Your task to perform on an android device: open device folders in google photos Image 0: 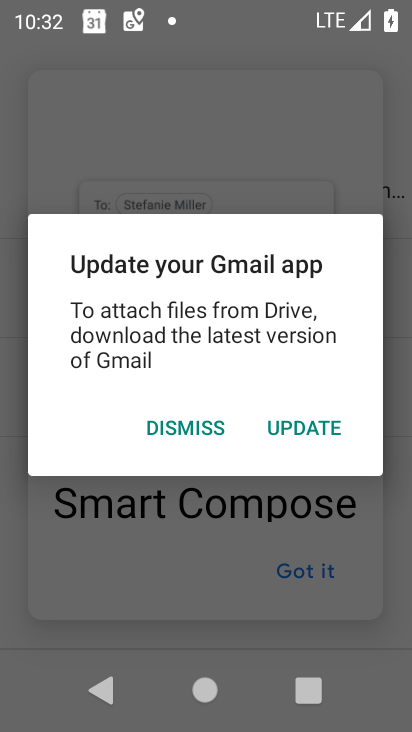
Step 0: press home button
Your task to perform on an android device: open device folders in google photos Image 1: 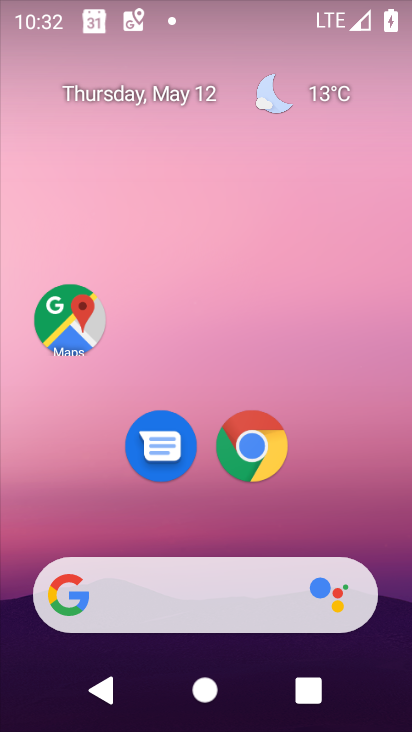
Step 1: drag from (233, 673) to (375, 0)
Your task to perform on an android device: open device folders in google photos Image 2: 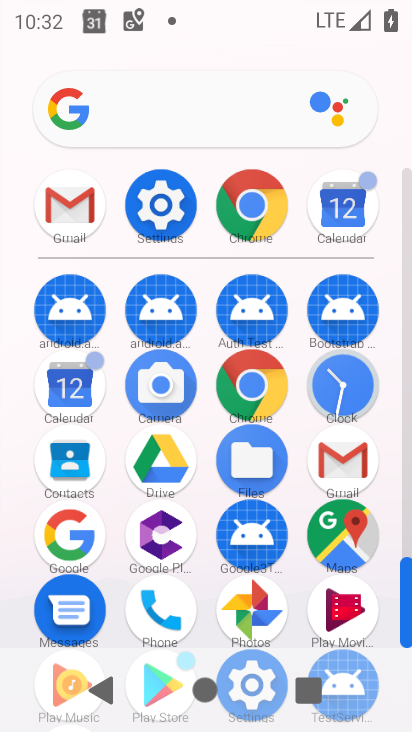
Step 2: click (255, 615)
Your task to perform on an android device: open device folders in google photos Image 3: 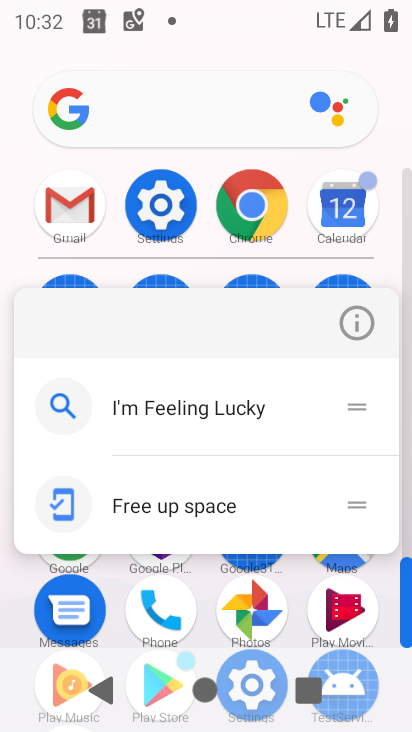
Step 3: click (265, 605)
Your task to perform on an android device: open device folders in google photos Image 4: 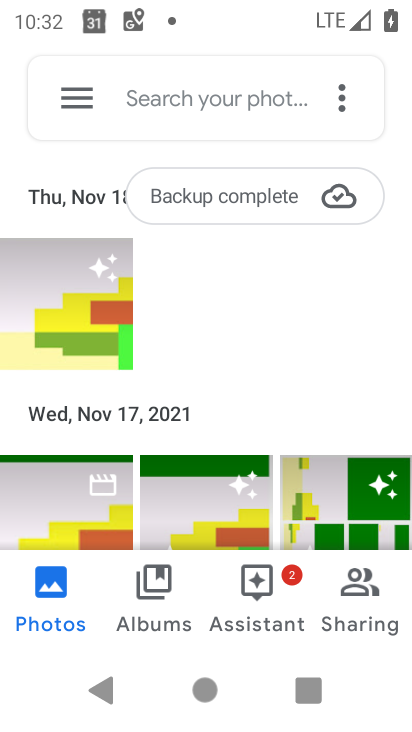
Step 4: click (92, 97)
Your task to perform on an android device: open device folders in google photos Image 5: 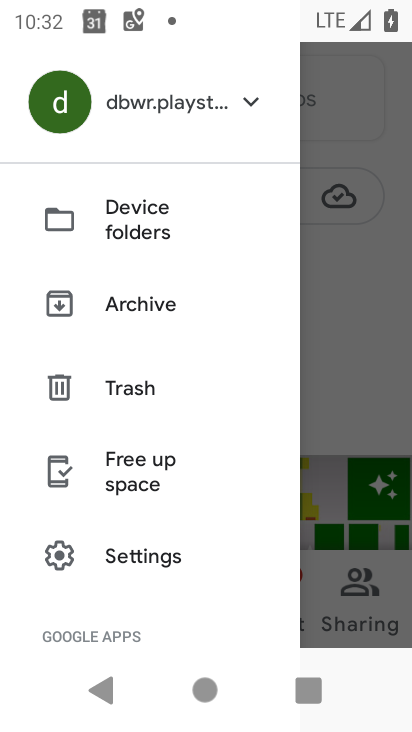
Step 5: click (186, 213)
Your task to perform on an android device: open device folders in google photos Image 6: 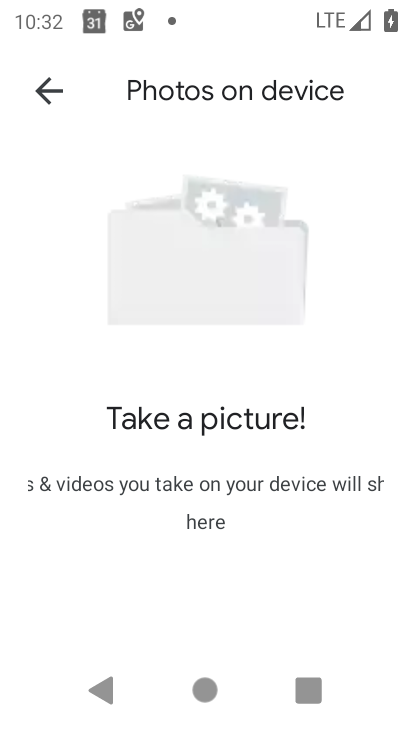
Step 6: task complete